Your task to perform on an android device: visit the assistant section in the google photos Image 0: 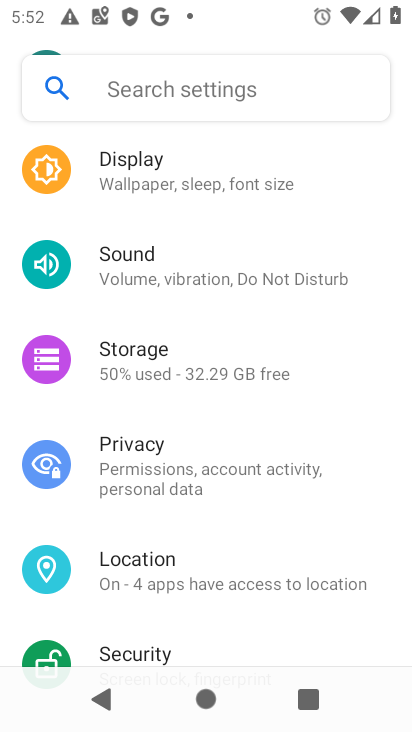
Step 0: press home button
Your task to perform on an android device: visit the assistant section in the google photos Image 1: 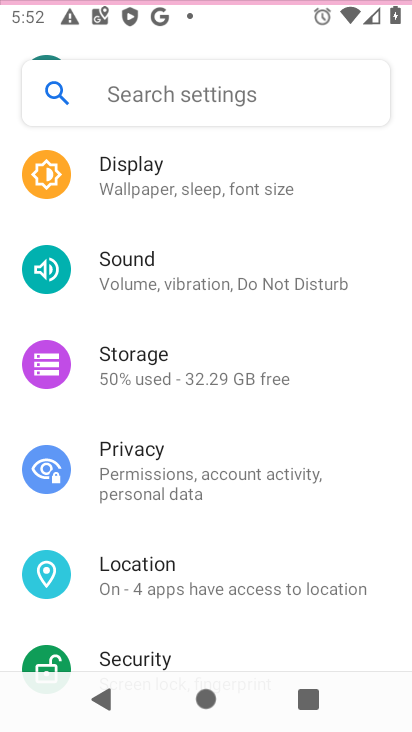
Step 1: press home button
Your task to perform on an android device: visit the assistant section in the google photos Image 2: 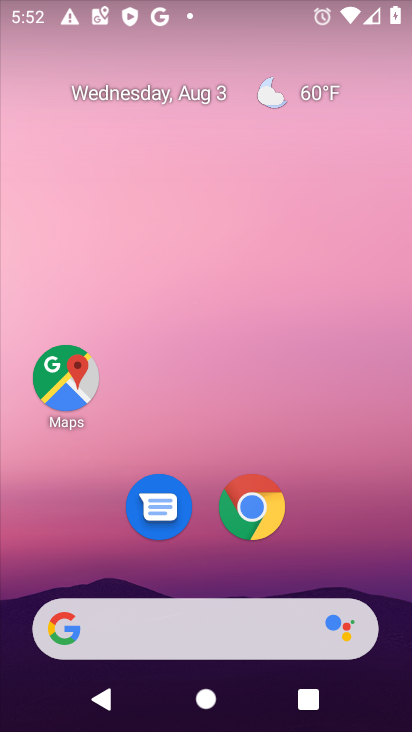
Step 2: drag from (336, 546) to (348, 66)
Your task to perform on an android device: visit the assistant section in the google photos Image 3: 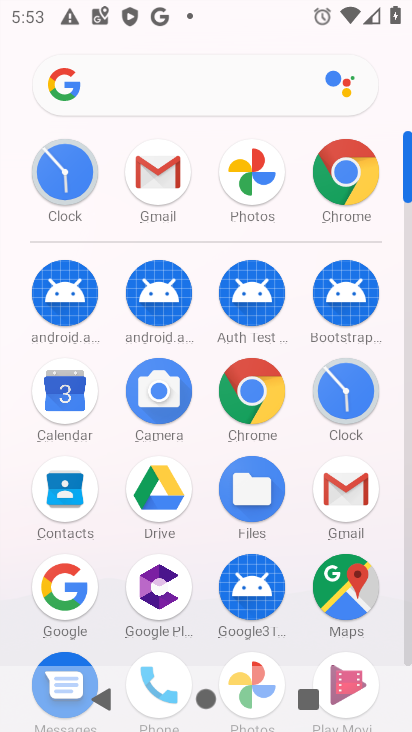
Step 3: click (249, 169)
Your task to perform on an android device: visit the assistant section in the google photos Image 4: 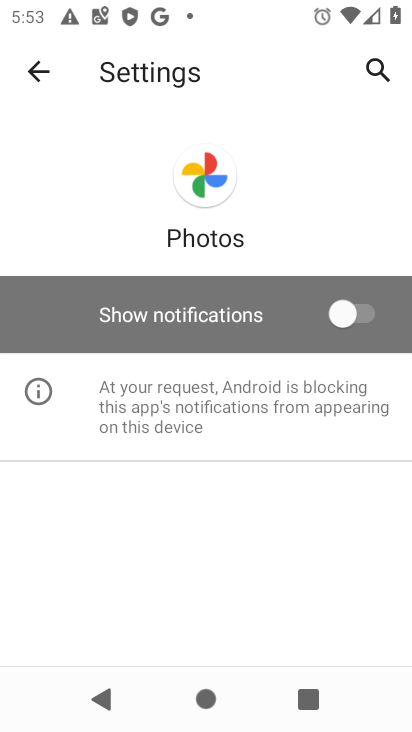
Step 4: click (30, 56)
Your task to perform on an android device: visit the assistant section in the google photos Image 5: 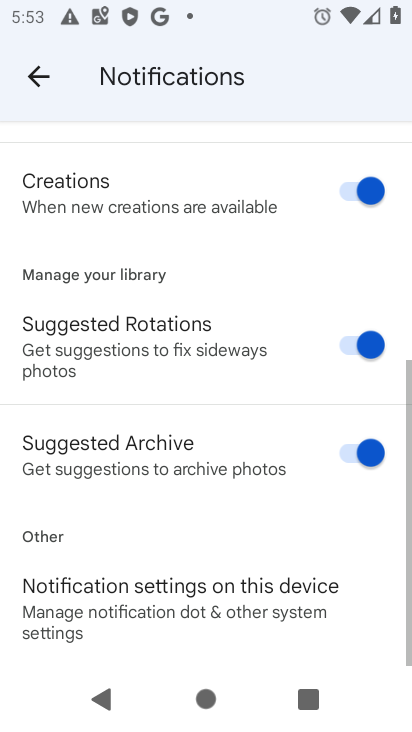
Step 5: click (41, 78)
Your task to perform on an android device: visit the assistant section in the google photos Image 6: 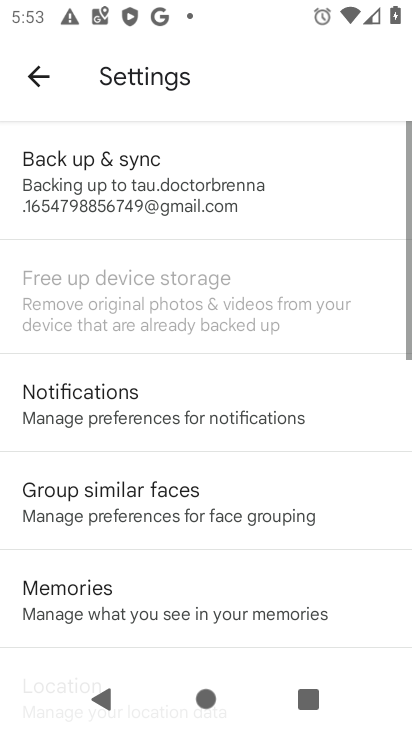
Step 6: click (41, 78)
Your task to perform on an android device: visit the assistant section in the google photos Image 7: 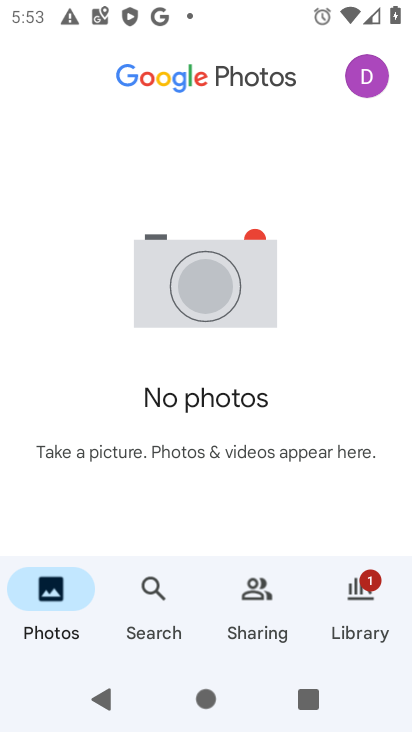
Step 7: click (355, 608)
Your task to perform on an android device: visit the assistant section in the google photos Image 8: 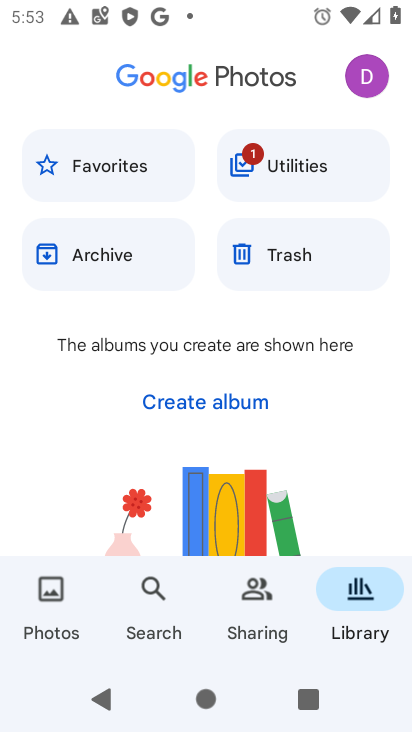
Step 8: click (320, 163)
Your task to perform on an android device: visit the assistant section in the google photos Image 9: 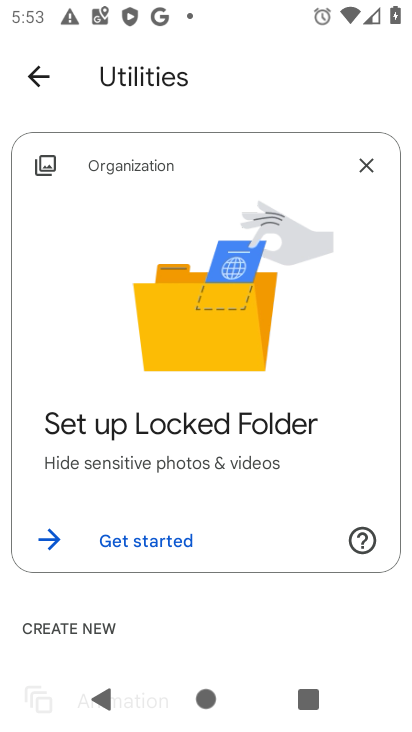
Step 9: task complete